Your task to perform on an android device: Set the phone to "Do not disturb". Image 0: 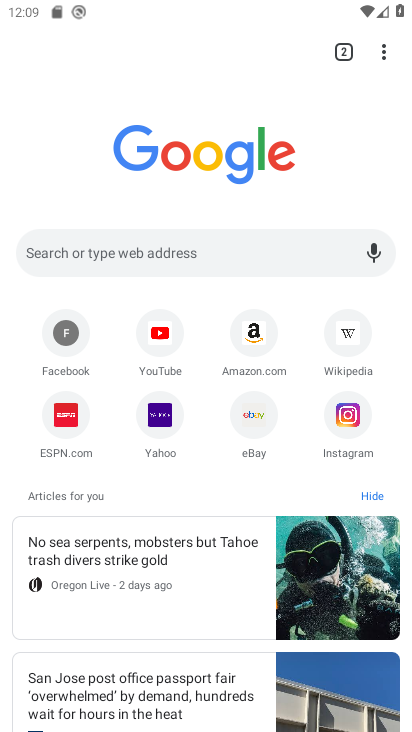
Step 0: press home button
Your task to perform on an android device: Set the phone to "Do not disturb". Image 1: 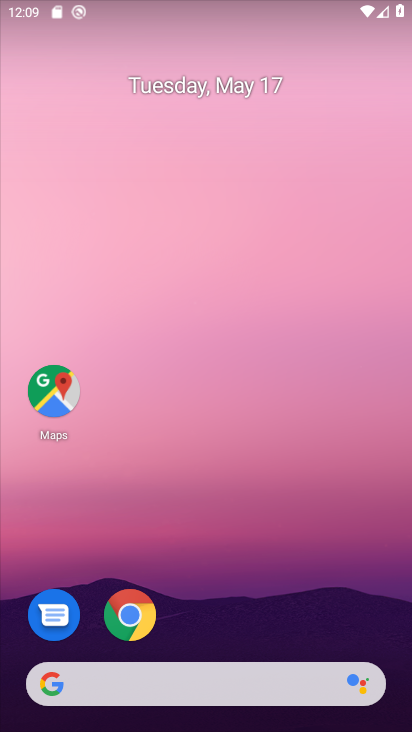
Step 1: drag from (208, 663) to (244, 287)
Your task to perform on an android device: Set the phone to "Do not disturb". Image 2: 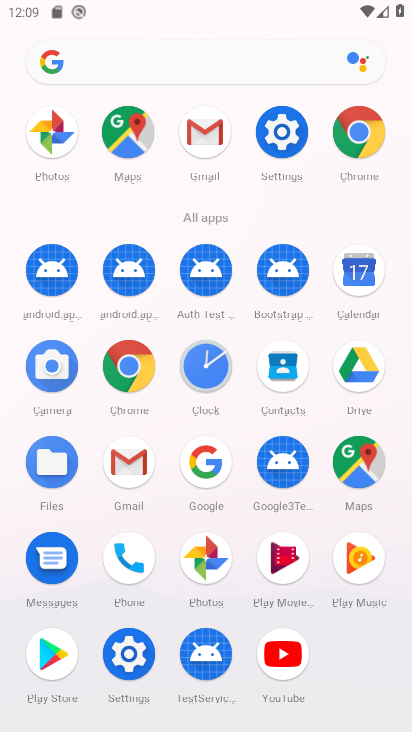
Step 2: click (295, 129)
Your task to perform on an android device: Set the phone to "Do not disturb". Image 3: 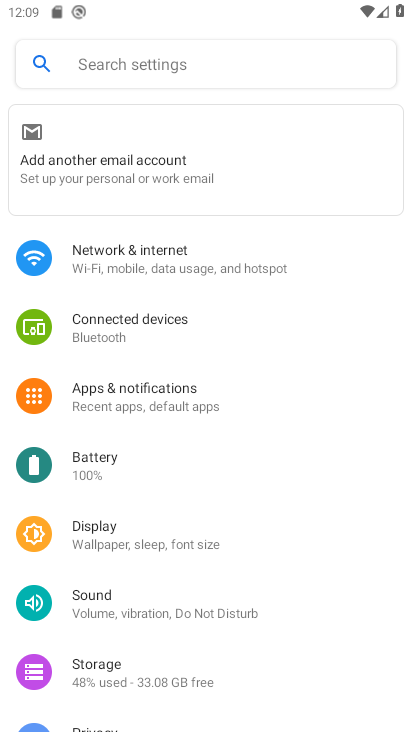
Step 3: drag from (113, 630) to (128, 341)
Your task to perform on an android device: Set the phone to "Do not disturb". Image 4: 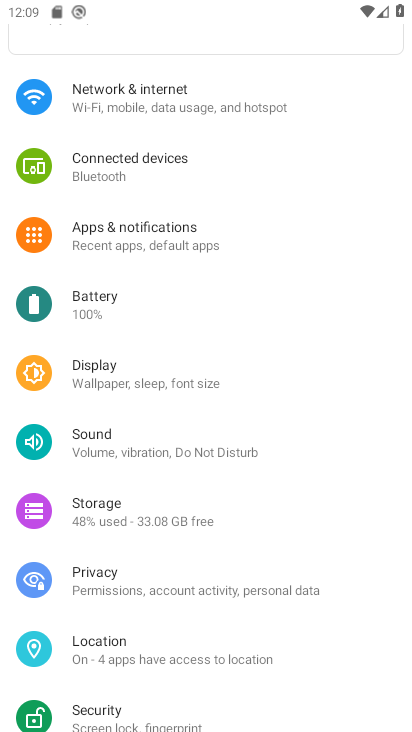
Step 4: click (133, 448)
Your task to perform on an android device: Set the phone to "Do not disturb". Image 5: 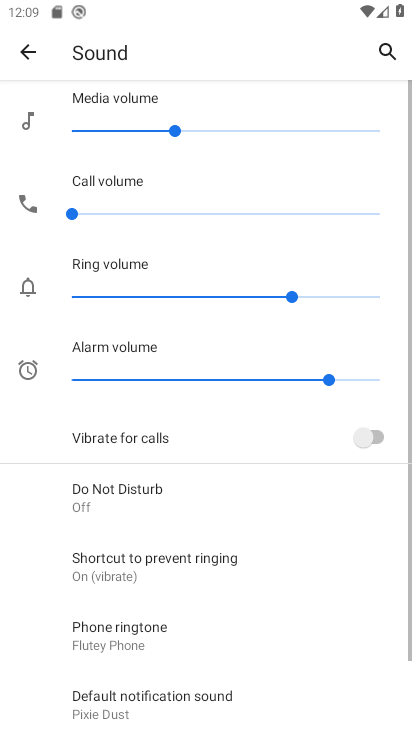
Step 5: drag from (181, 675) to (232, 285)
Your task to perform on an android device: Set the phone to "Do not disturb". Image 6: 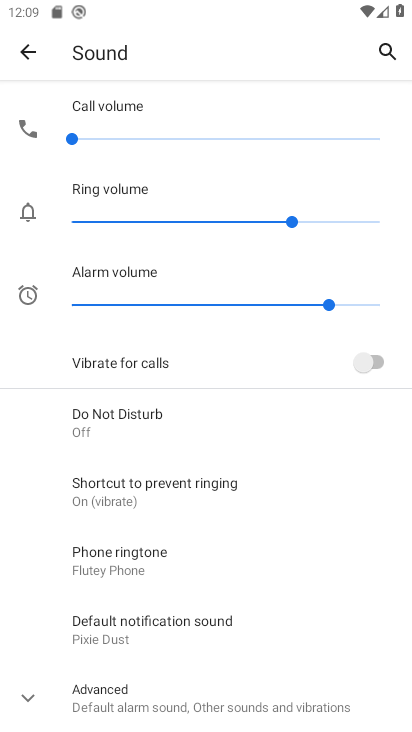
Step 6: click (132, 405)
Your task to perform on an android device: Set the phone to "Do not disturb". Image 7: 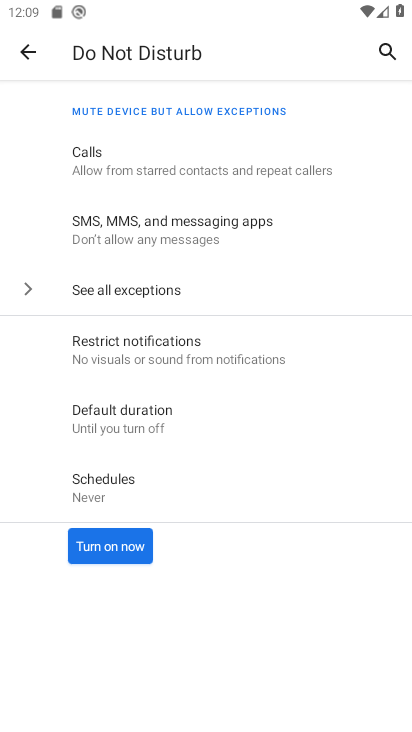
Step 7: click (117, 556)
Your task to perform on an android device: Set the phone to "Do not disturb". Image 8: 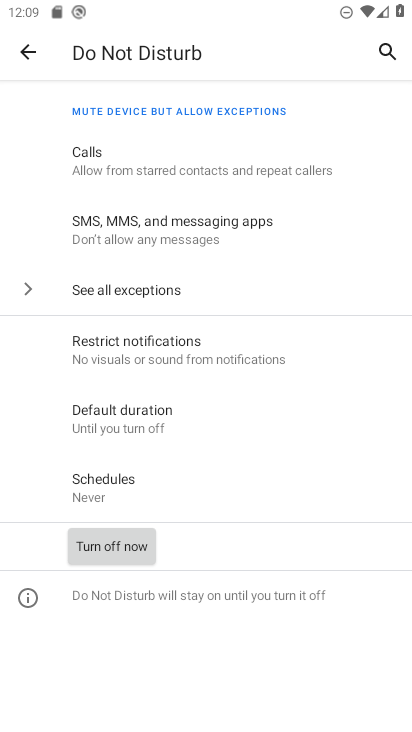
Step 8: task complete